Your task to perform on an android device: find which apps use the phone's location Image 0: 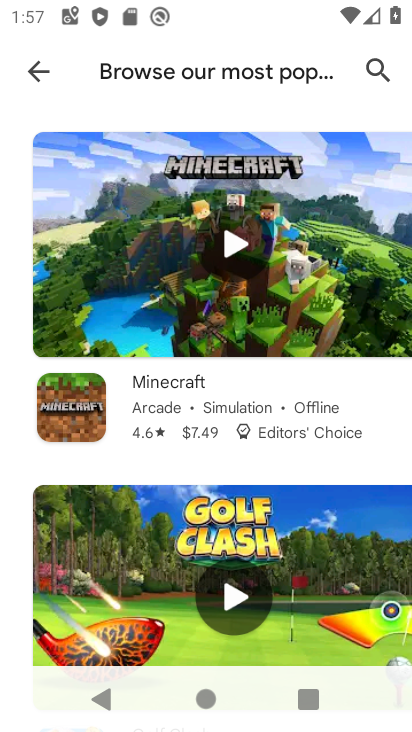
Step 0: press home button
Your task to perform on an android device: find which apps use the phone's location Image 1: 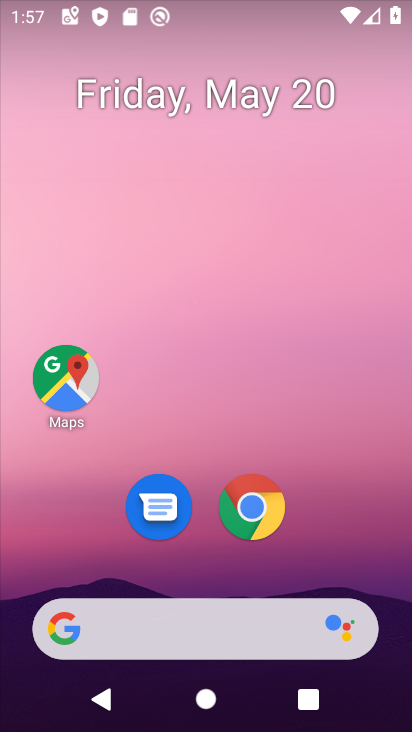
Step 1: drag from (226, 720) to (228, 250)
Your task to perform on an android device: find which apps use the phone's location Image 2: 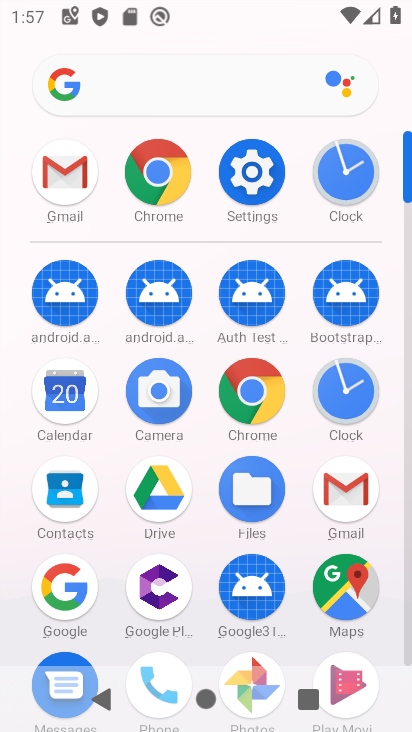
Step 2: click (248, 172)
Your task to perform on an android device: find which apps use the phone's location Image 3: 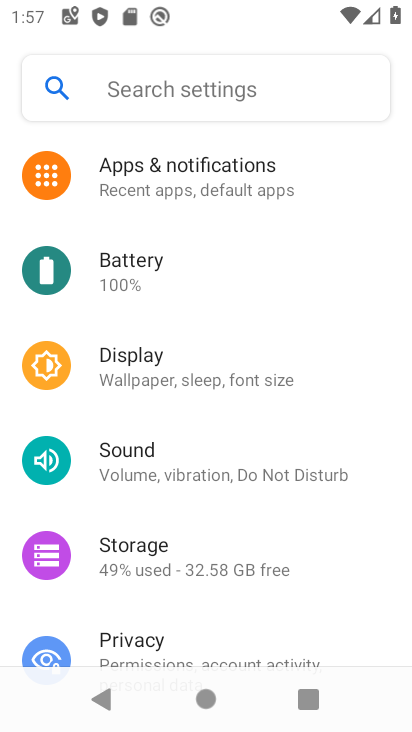
Step 3: drag from (153, 634) to (165, 252)
Your task to perform on an android device: find which apps use the phone's location Image 4: 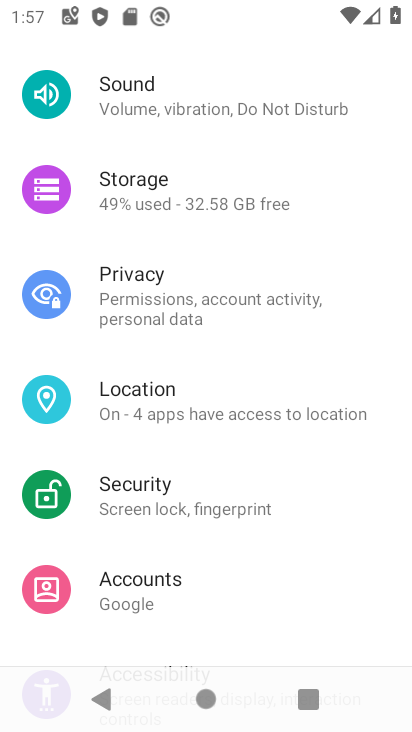
Step 4: click (146, 398)
Your task to perform on an android device: find which apps use the phone's location Image 5: 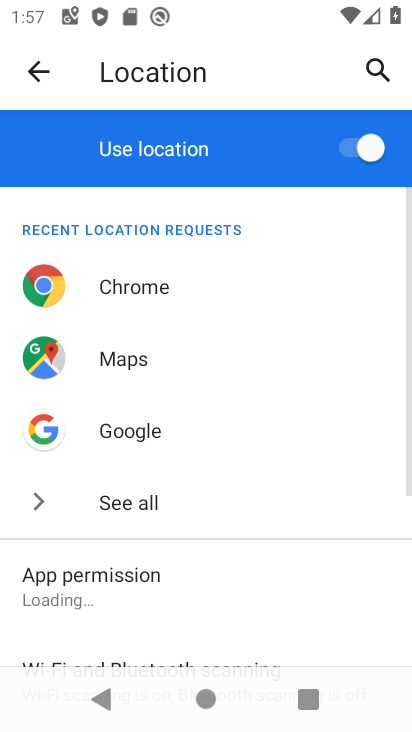
Step 5: drag from (159, 633) to (164, 253)
Your task to perform on an android device: find which apps use the phone's location Image 6: 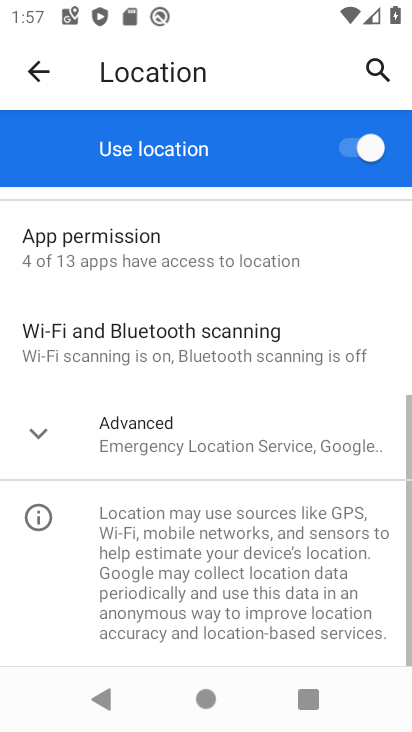
Step 6: click (72, 234)
Your task to perform on an android device: find which apps use the phone's location Image 7: 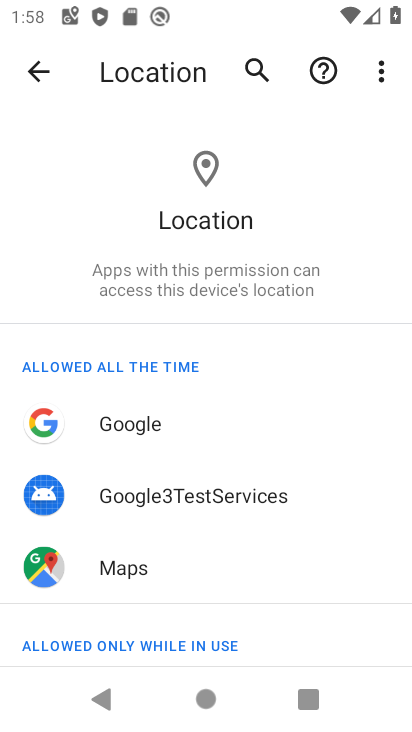
Step 7: task complete